Your task to perform on an android device: Open maps Image 0: 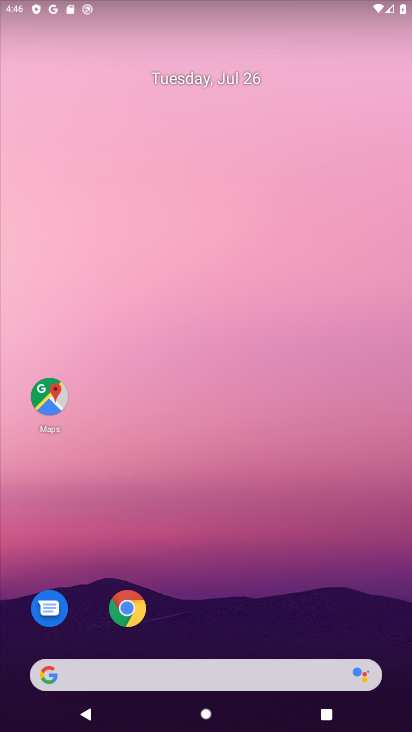
Step 0: click (55, 398)
Your task to perform on an android device: Open maps Image 1: 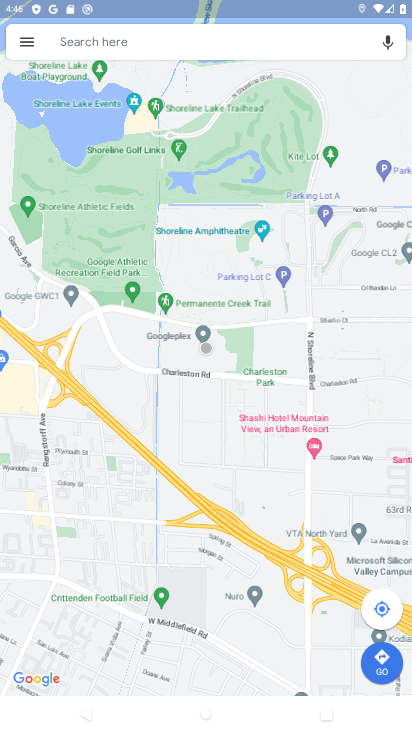
Step 1: task complete